Your task to perform on an android device: Open the stopwatch Image 0: 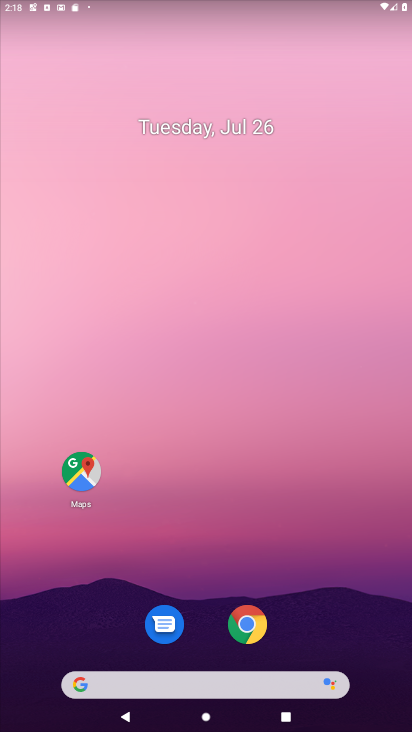
Step 0: drag from (218, 666) to (202, 333)
Your task to perform on an android device: Open the stopwatch Image 1: 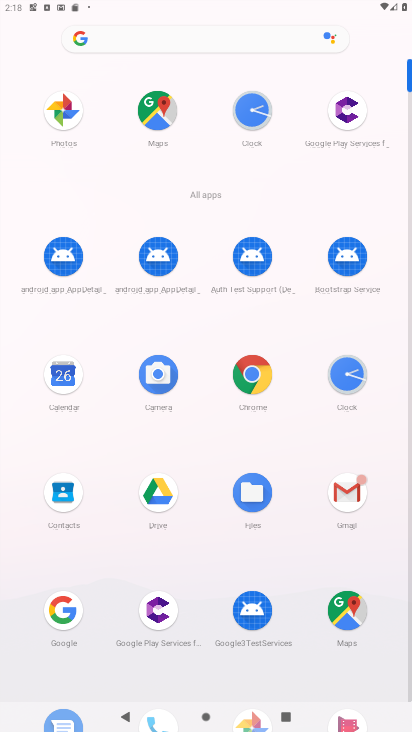
Step 1: click (339, 380)
Your task to perform on an android device: Open the stopwatch Image 2: 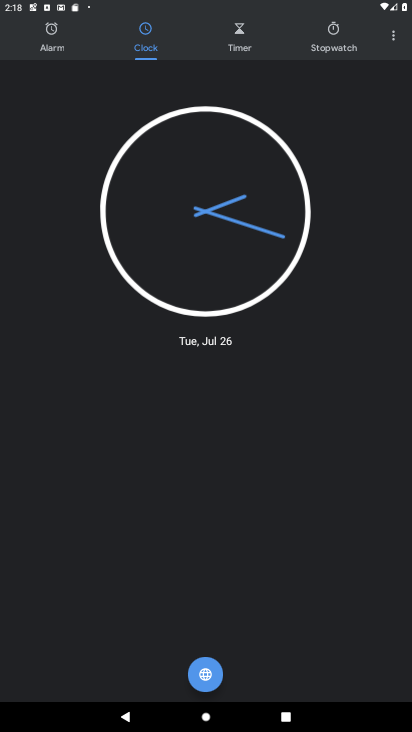
Step 2: click (332, 49)
Your task to perform on an android device: Open the stopwatch Image 3: 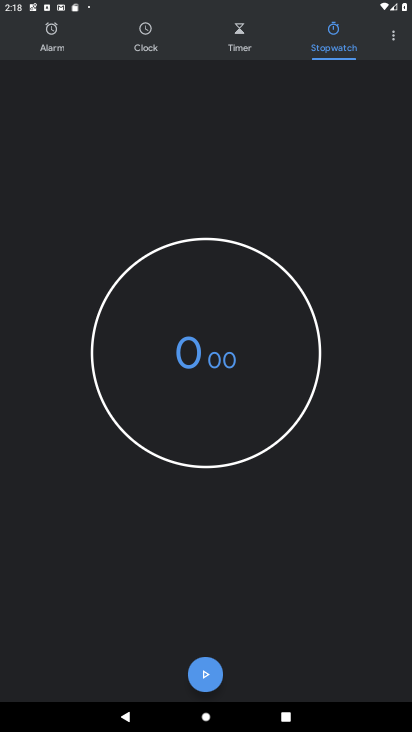
Step 3: task complete